Your task to perform on an android device: Open my contact list Image 0: 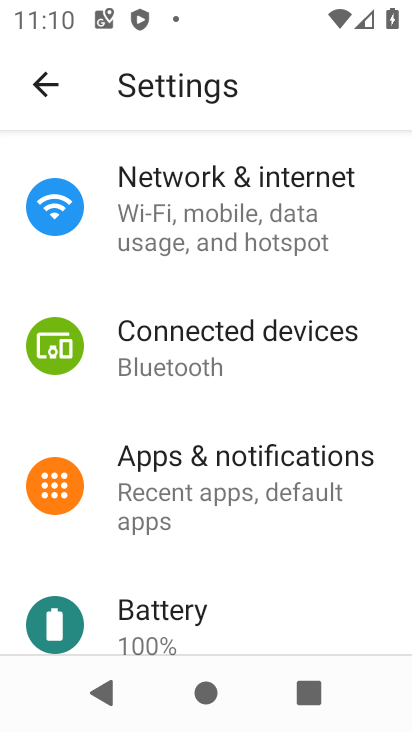
Step 0: drag from (263, 518) to (280, 105)
Your task to perform on an android device: Open my contact list Image 1: 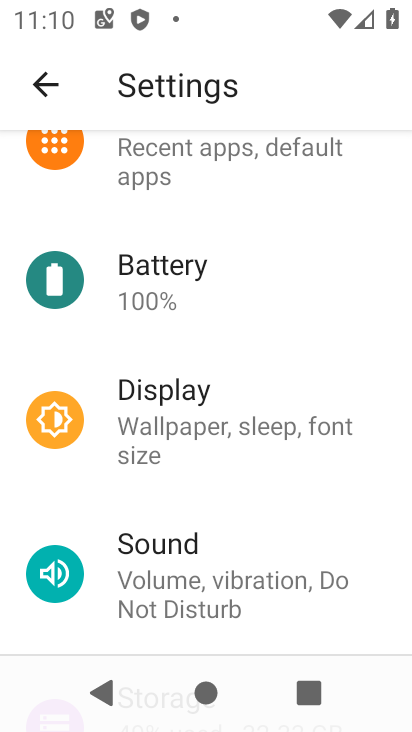
Step 1: drag from (172, 597) to (225, 230)
Your task to perform on an android device: Open my contact list Image 2: 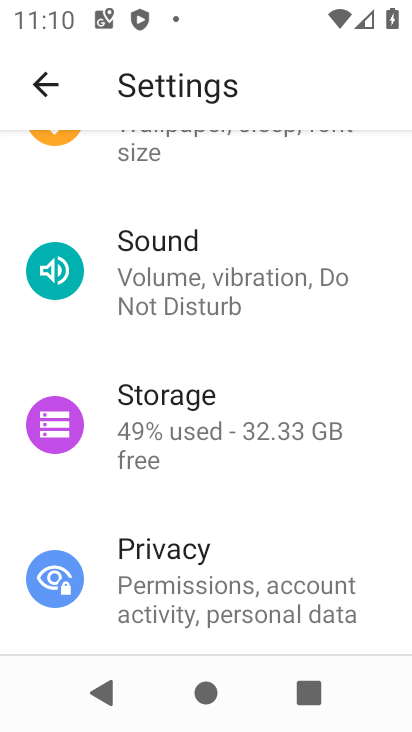
Step 2: drag from (225, 221) to (304, 726)
Your task to perform on an android device: Open my contact list Image 3: 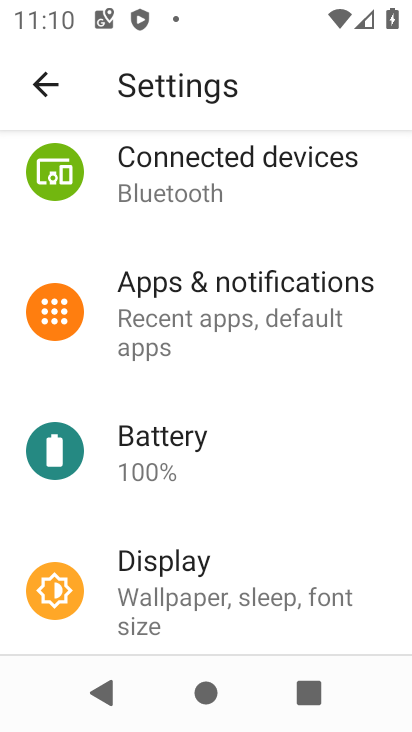
Step 3: drag from (222, 230) to (357, 647)
Your task to perform on an android device: Open my contact list Image 4: 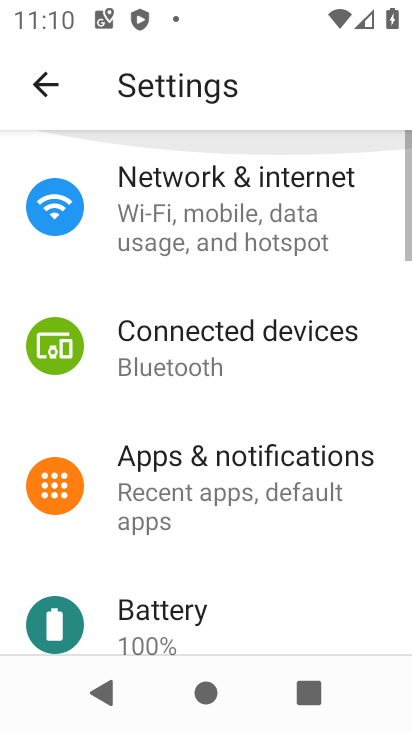
Step 4: press home button
Your task to perform on an android device: Open my contact list Image 5: 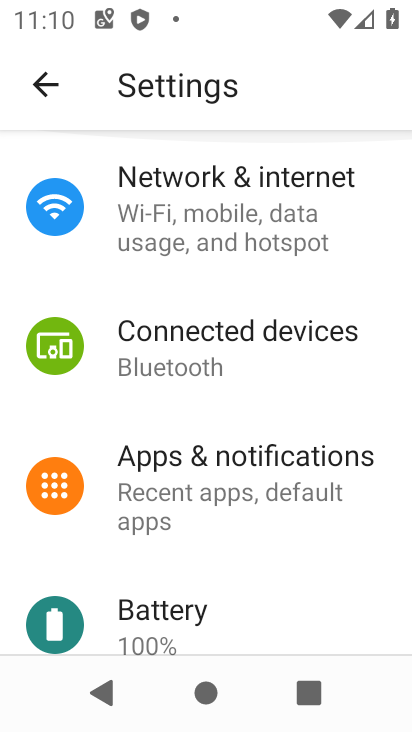
Step 5: drag from (357, 647) to (406, 563)
Your task to perform on an android device: Open my contact list Image 6: 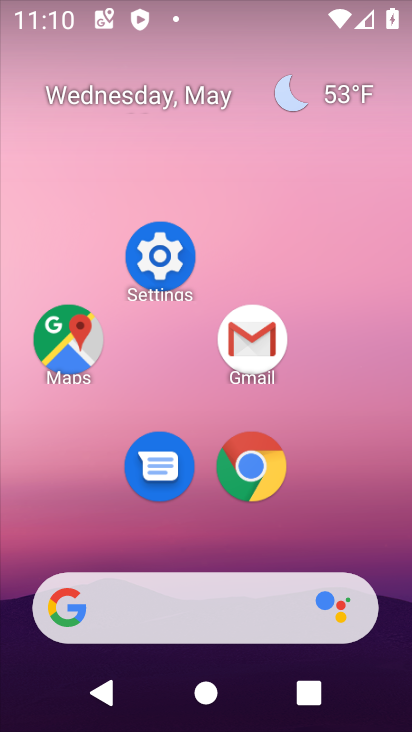
Step 6: drag from (214, 518) to (222, 269)
Your task to perform on an android device: Open my contact list Image 7: 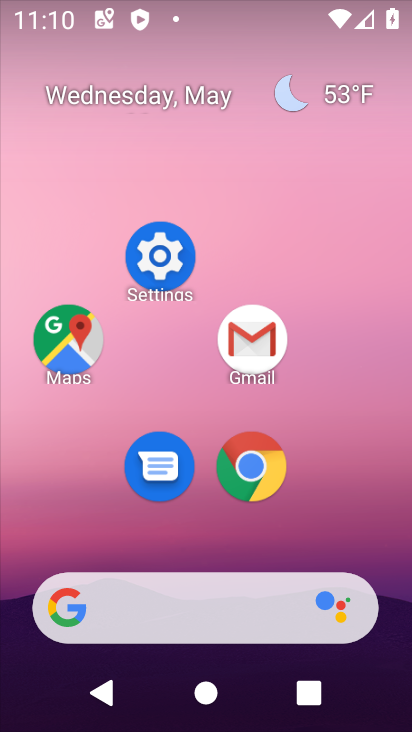
Step 7: drag from (207, 479) to (235, 225)
Your task to perform on an android device: Open my contact list Image 8: 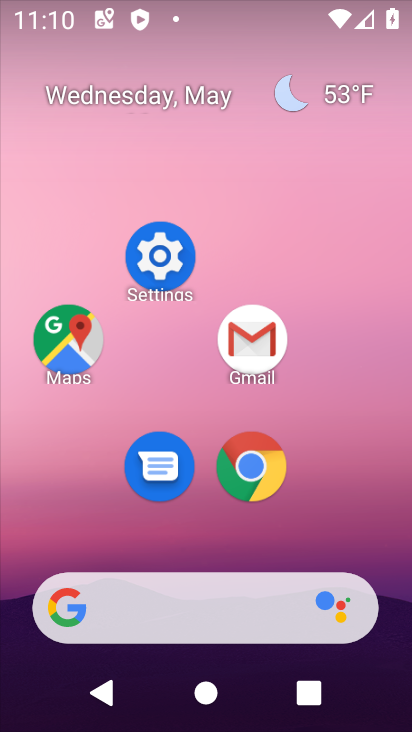
Step 8: drag from (186, 508) to (215, 57)
Your task to perform on an android device: Open my contact list Image 9: 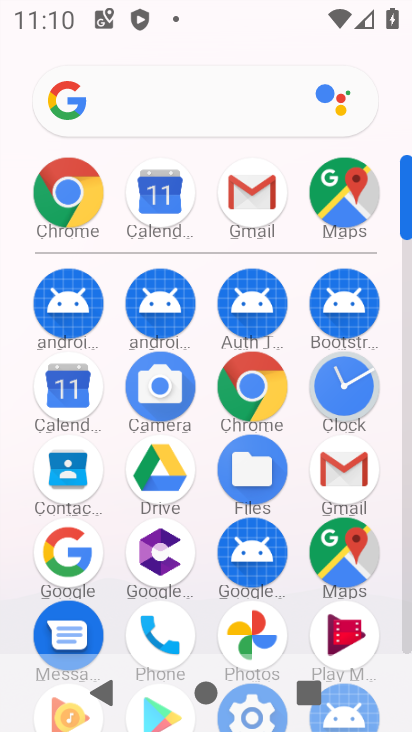
Step 9: click (83, 476)
Your task to perform on an android device: Open my contact list Image 10: 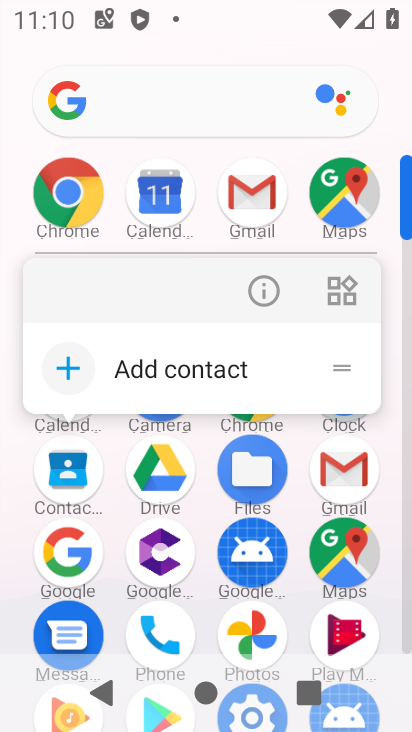
Step 10: click (261, 307)
Your task to perform on an android device: Open my contact list Image 11: 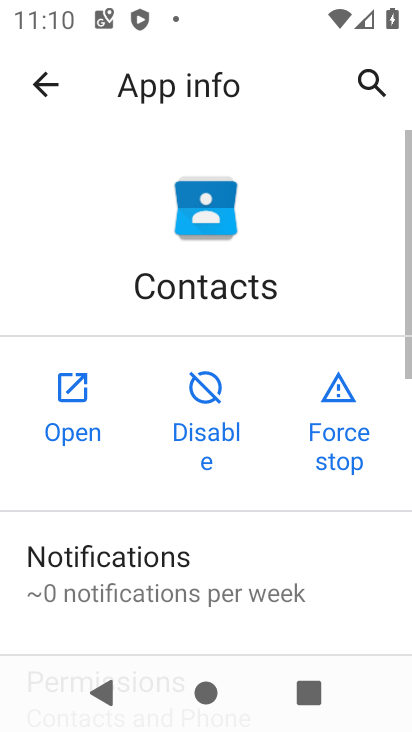
Step 11: click (92, 388)
Your task to perform on an android device: Open my contact list Image 12: 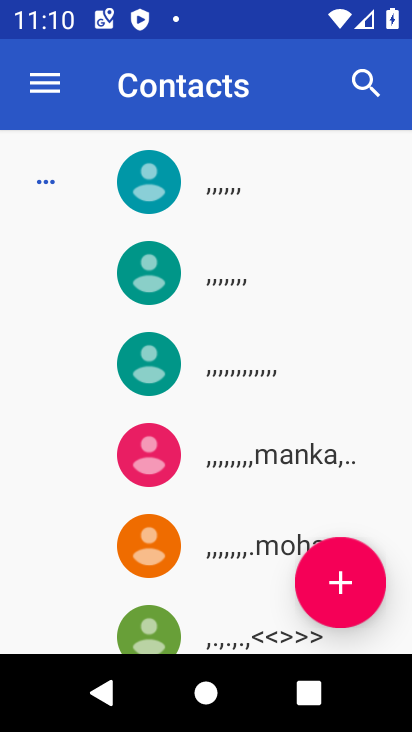
Step 12: task complete